Your task to perform on an android device: Search for Mexican restaurants on Maps Image 0: 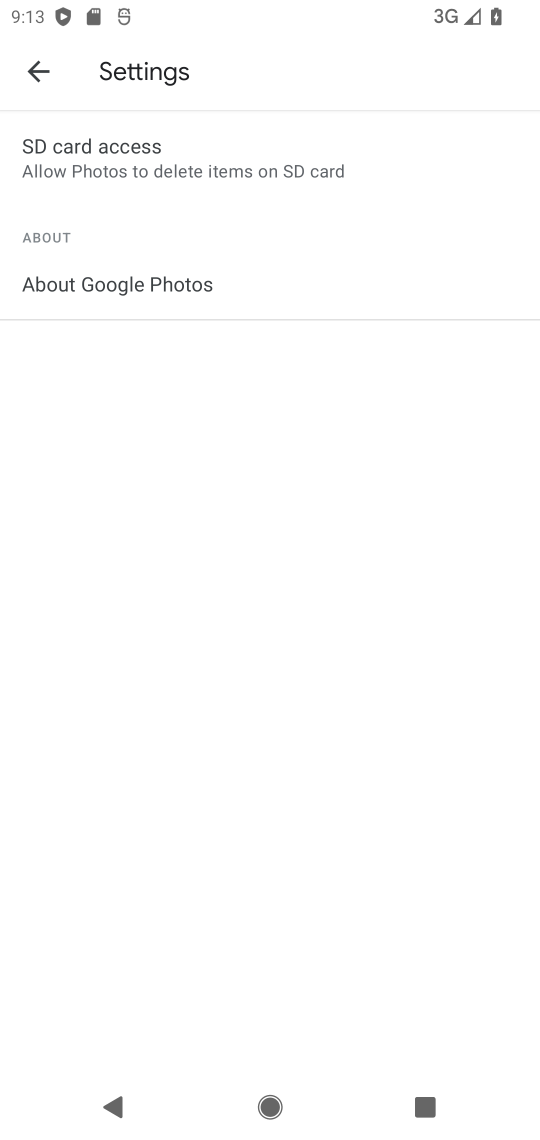
Step 0: press home button
Your task to perform on an android device: Search for Mexican restaurants on Maps Image 1: 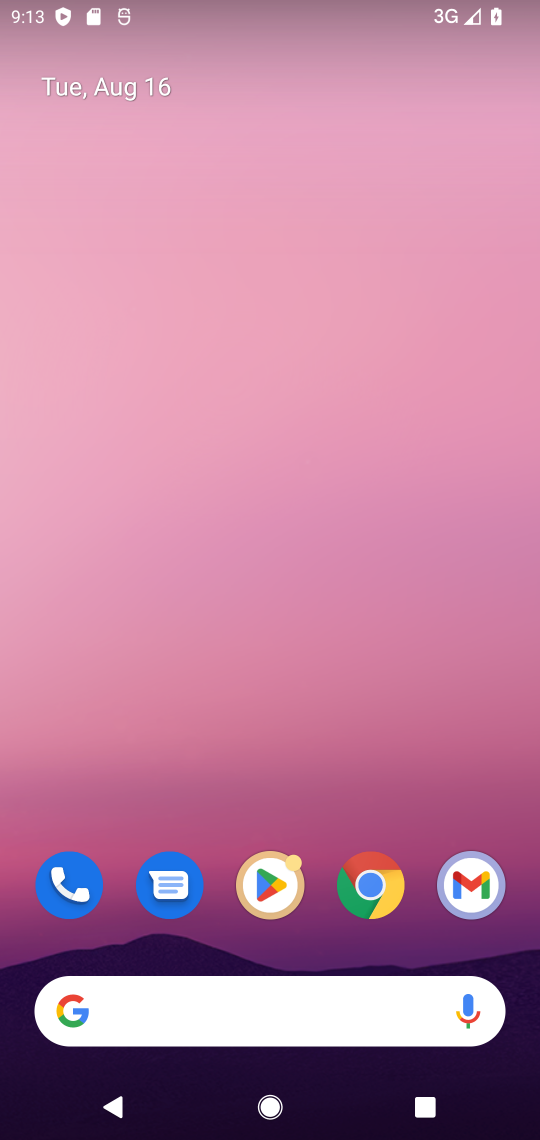
Step 1: drag from (248, 905) to (382, 87)
Your task to perform on an android device: Search for Mexican restaurants on Maps Image 2: 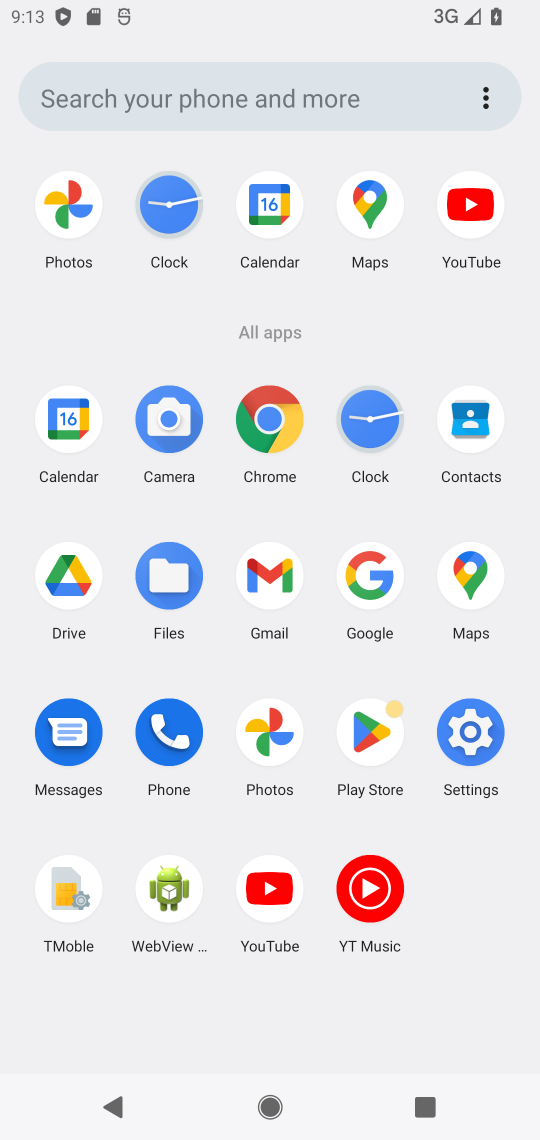
Step 2: click (465, 565)
Your task to perform on an android device: Search for Mexican restaurants on Maps Image 3: 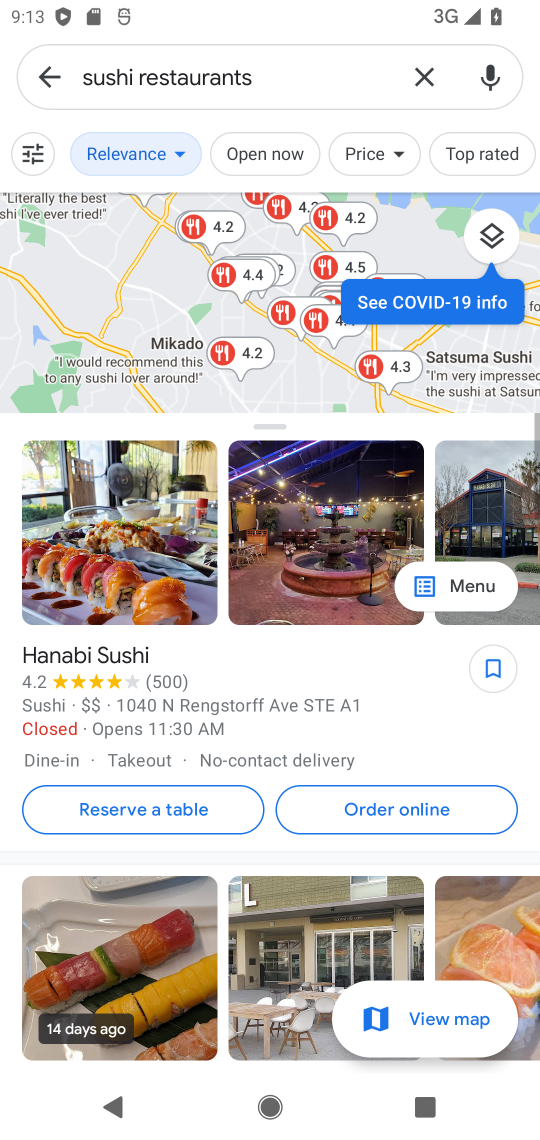
Step 3: click (417, 75)
Your task to perform on an android device: Search for Mexican restaurants on Maps Image 4: 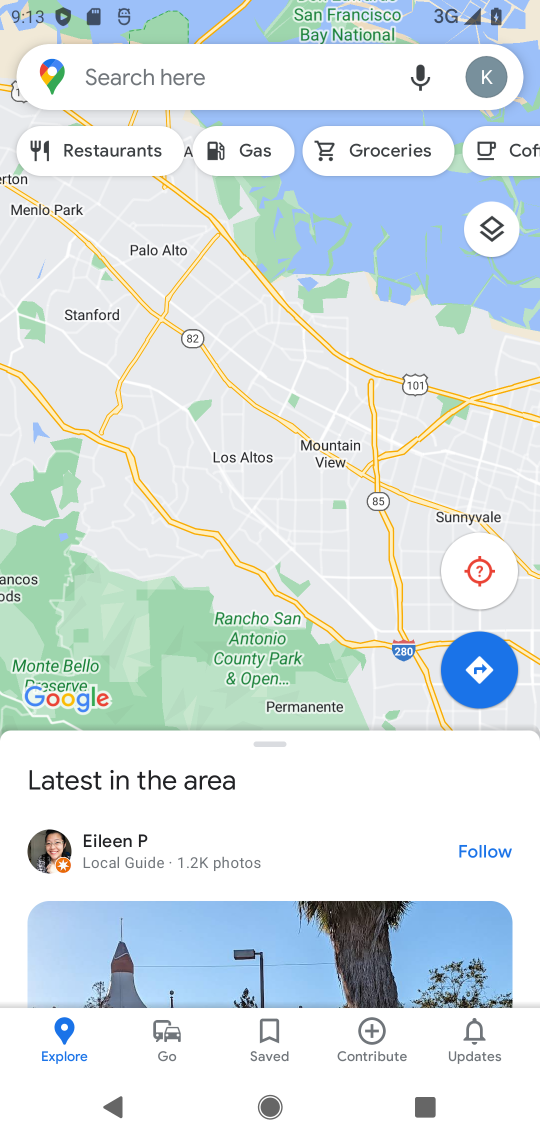
Step 4: click (264, 71)
Your task to perform on an android device: Search for Mexican restaurants on Maps Image 5: 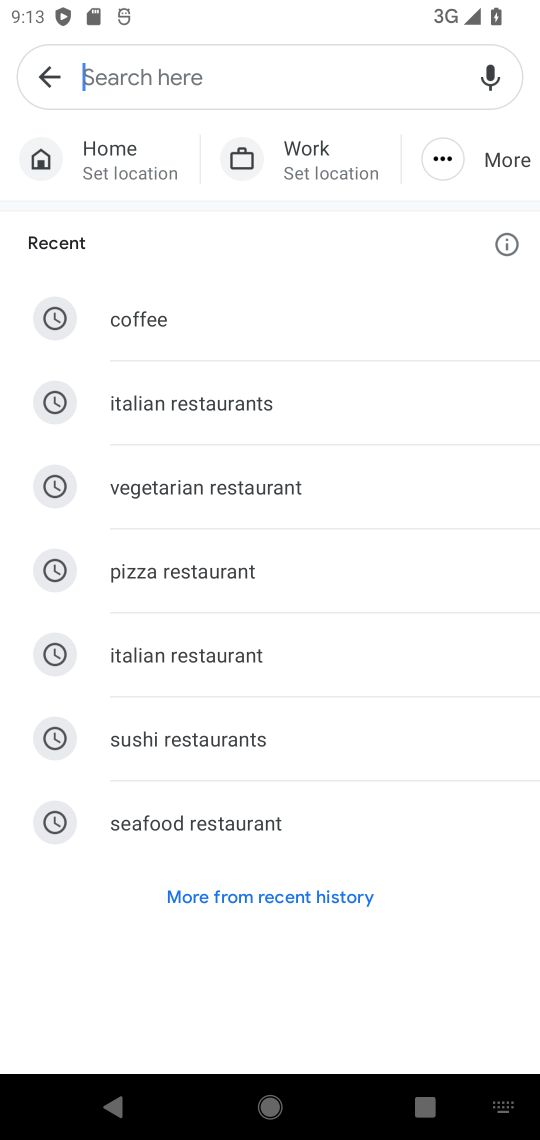
Step 5: type "Mexican restaurants "
Your task to perform on an android device: Search for Mexican restaurants on Maps Image 6: 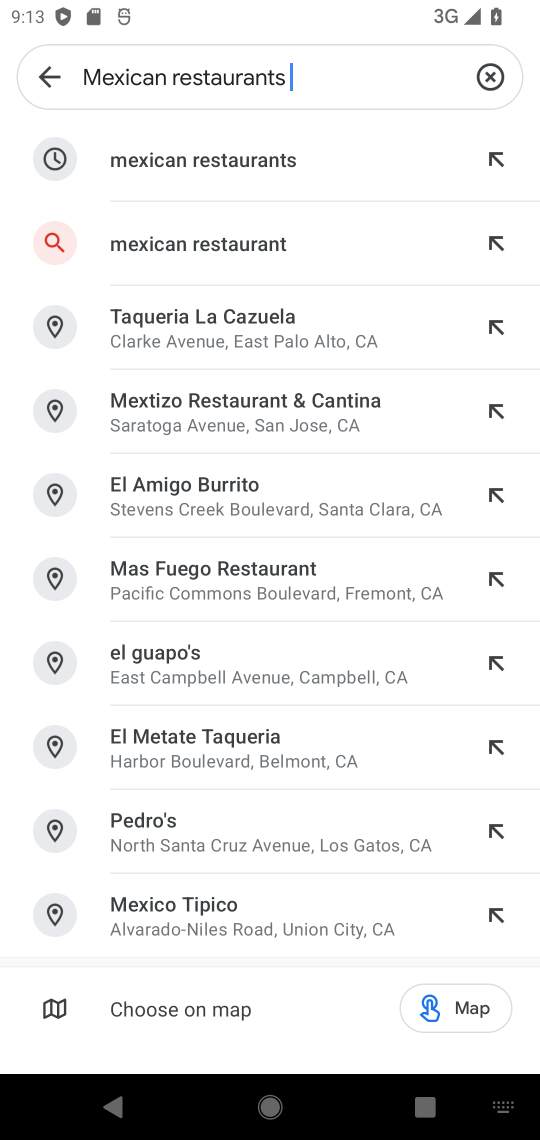
Step 6: click (209, 152)
Your task to perform on an android device: Search for Mexican restaurants on Maps Image 7: 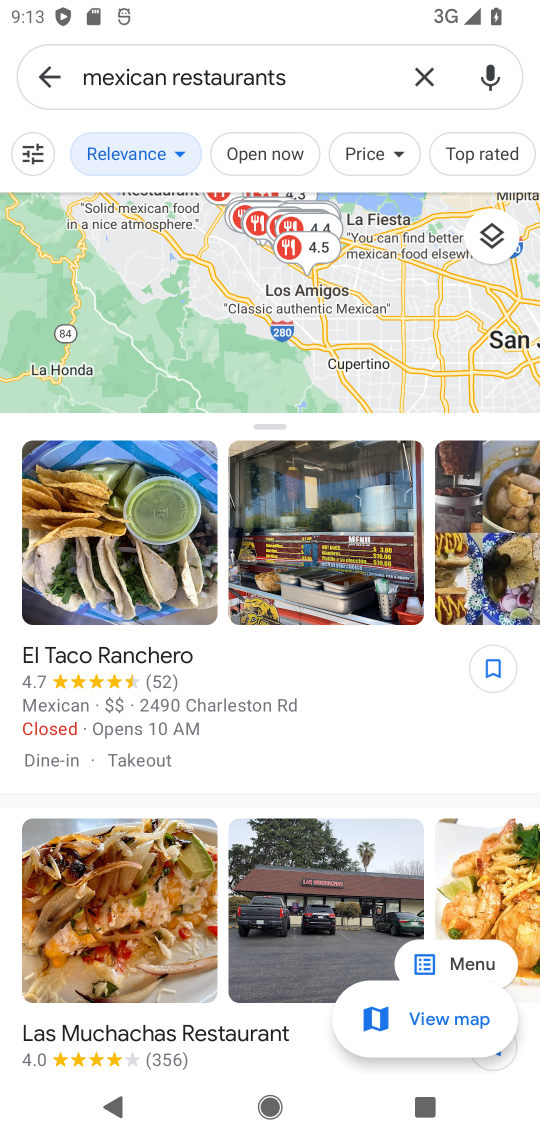
Step 7: task complete